Your task to perform on an android device: turn on airplane mode Image 0: 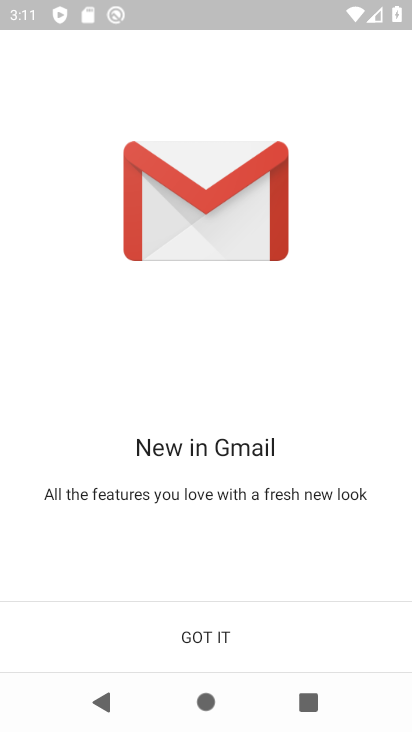
Step 0: press home button
Your task to perform on an android device: turn on airplane mode Image 1: 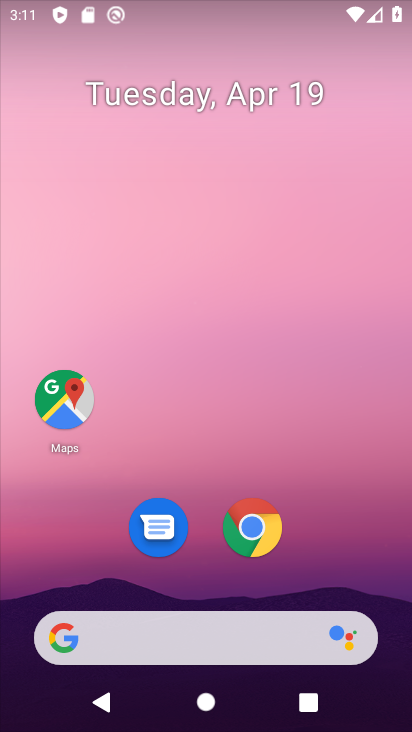
Step 1: drag from (253, 1) to (250, 603)
Your task to perform on an android device: turn on airplane mode Image 2: 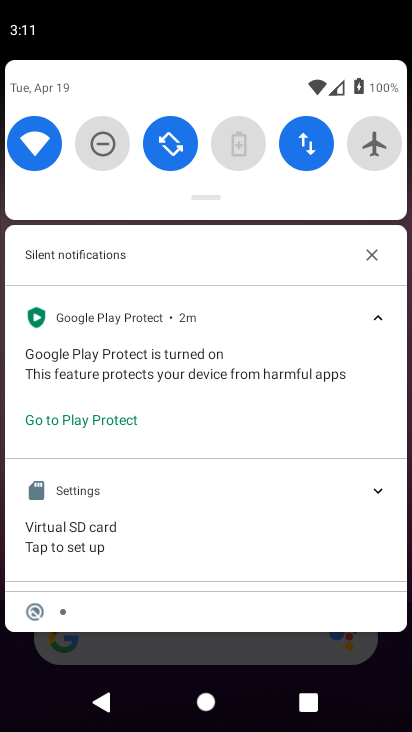
Step 2: click (384, 134)
Your task to perform on an android device: turn on airplane mode Image 3: 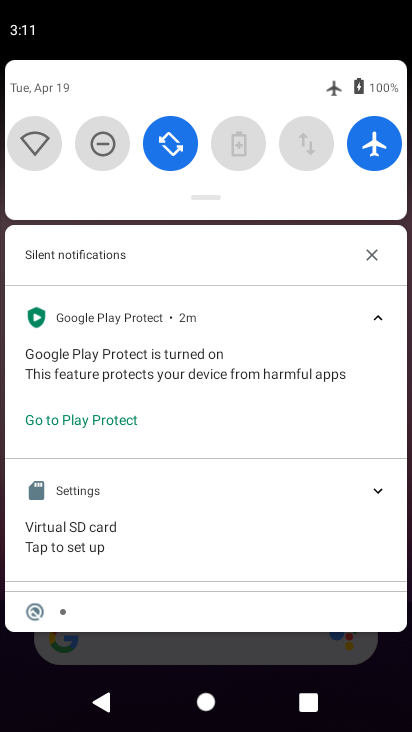
Step 3: task complete